Your task to perform on an android device: Open calendar and show me the fourth week of next month Image 0: 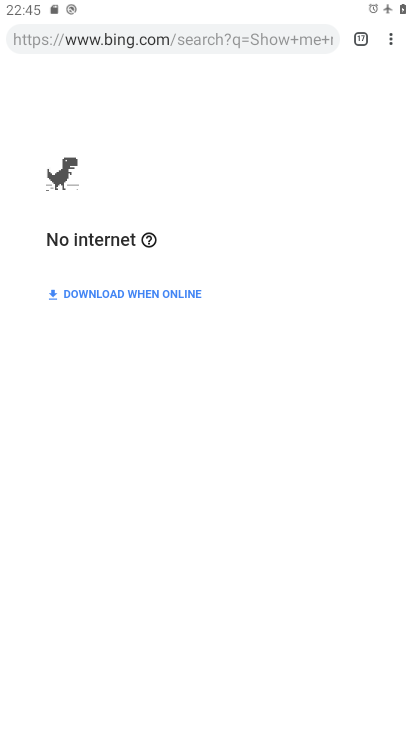
Step 0: press home button
Your task to perform on an android device: Open calendar and show me the fourth week of next month Image 1: 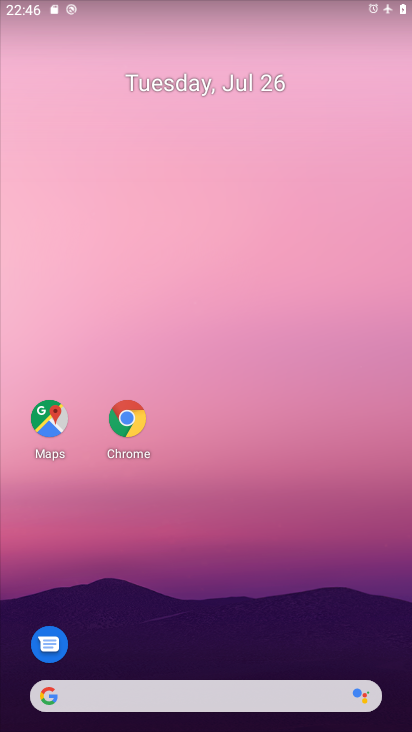
Step 1: drag from (189, 652) to (228, 136)
Your task to perform on an android device: Open calendar and show me the fourth week of next month Image 2: 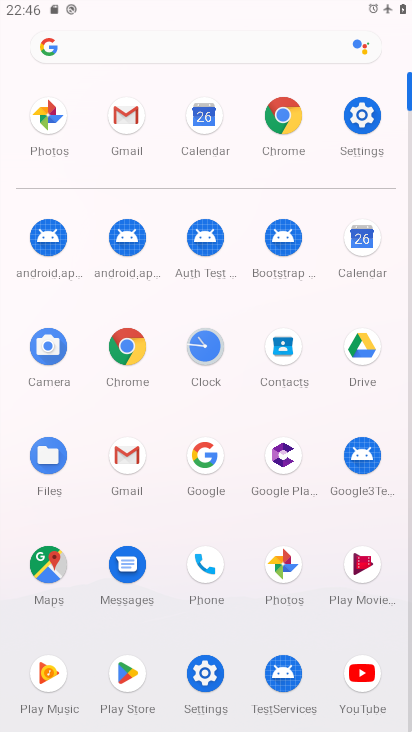
Step 2: click (363, 243)
Your task to perform on an android device: Open calendar and show me the fourth week of next month Image 3: 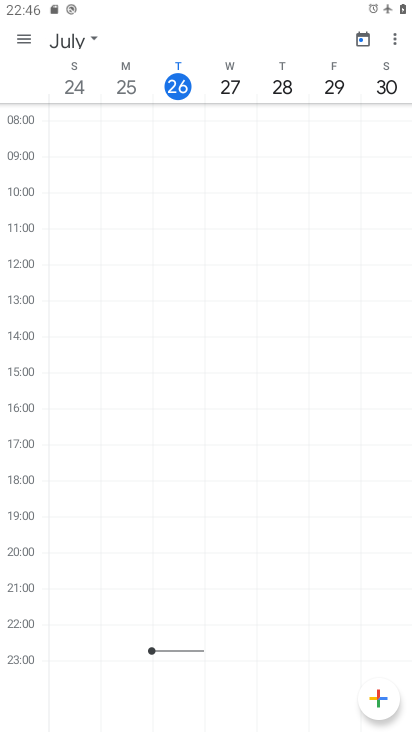
Step 3: click (20, 38)
Your task to perform on an android device: Open calendar and show me the fourth week of next month Image 4: 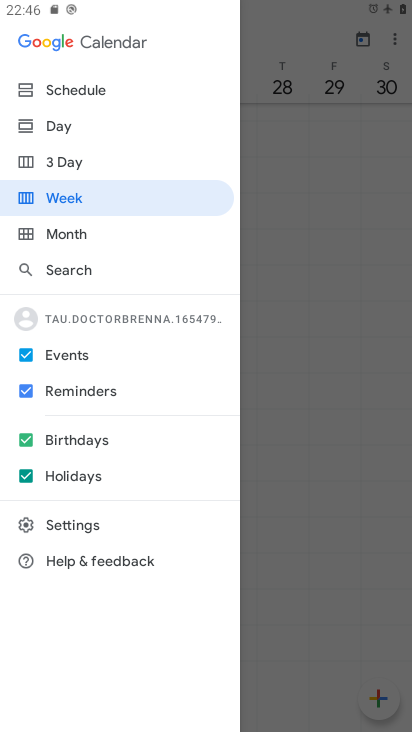
Step 4: click (81, 223)
Your task to perform on an android device: Open calendar and show me the fourth week of next month Image 5: 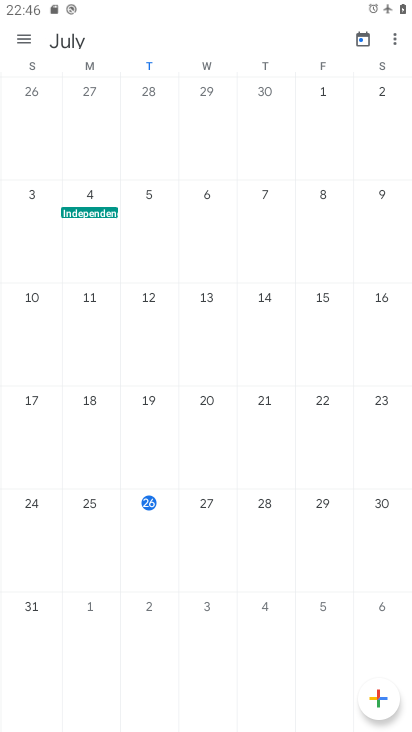
Step 5: drag from (268, 296) to (8, 262)
Your task to perform on an android device: Open calendar and show me the fourth week of next month Image 6: 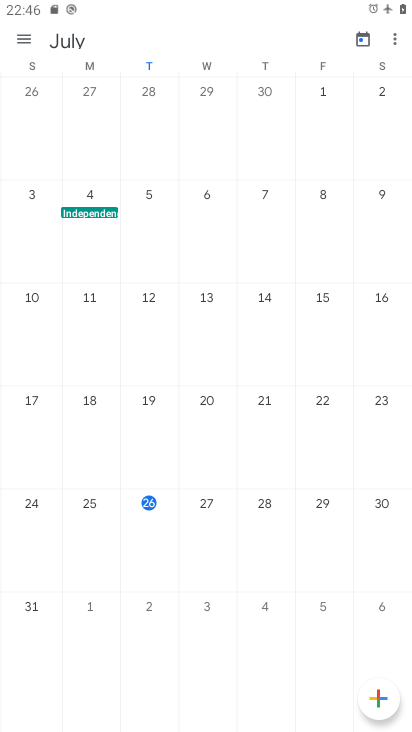
Step 6: drag from (301, 464) to (0, 197)
Your task to perform on an android device: Open calendar and show me the fourth week of next month Image 7: 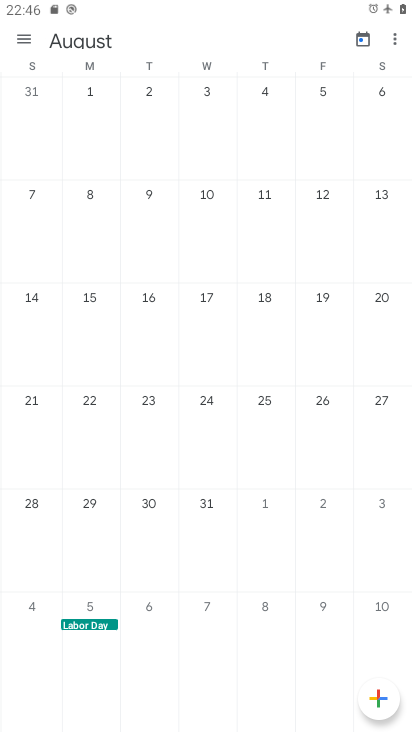
Step 7: click (27, 35)
Your task to perform on an android device: Open calendar and show me the fourth week of next month Image 8: 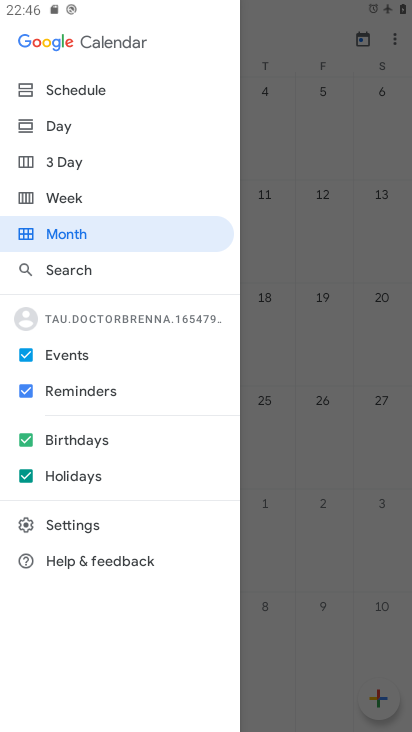
Step 8: click (76, 201)
Your task to perform on an android device: Open calendar and show me the fourth week of next month Image 9: 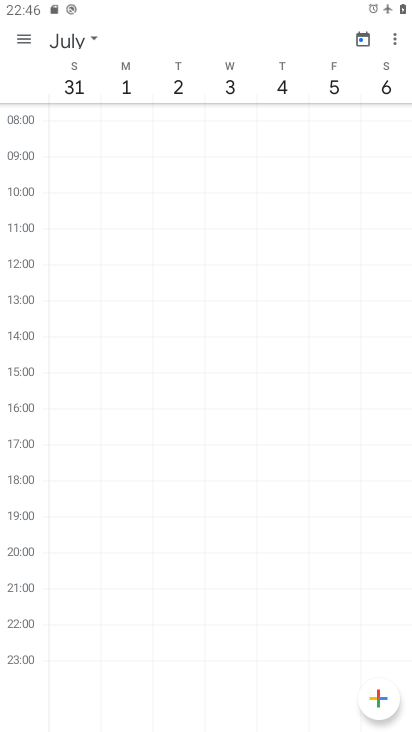
Step 9: task complete